Your task to perform on an android device: Go to accessibility settings Image 0: 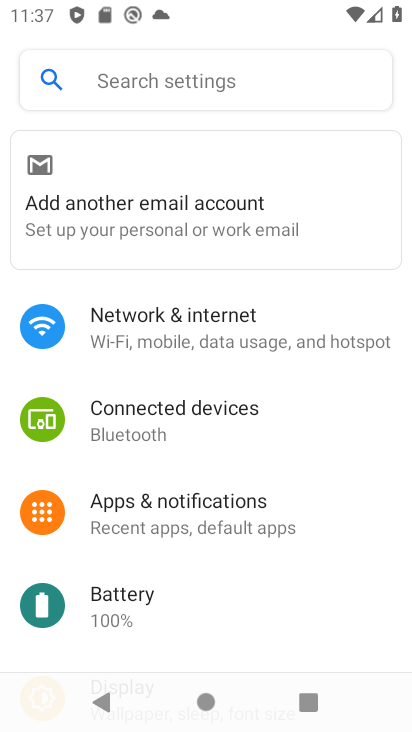
Step 0: drag from (192, 585) to (184, 2)
Your task to perform on an android device: Go to accessibility settings Image 1: 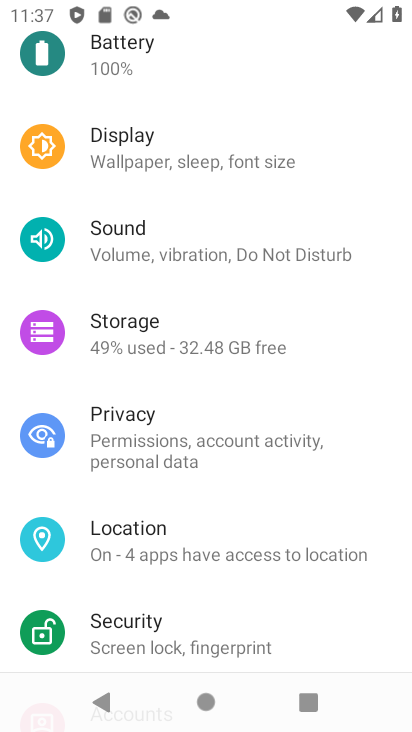
Step 1: drag from (204, 532) to (202, 51)
Your task to perform on an android device: Go to accessibility settings Image 2: 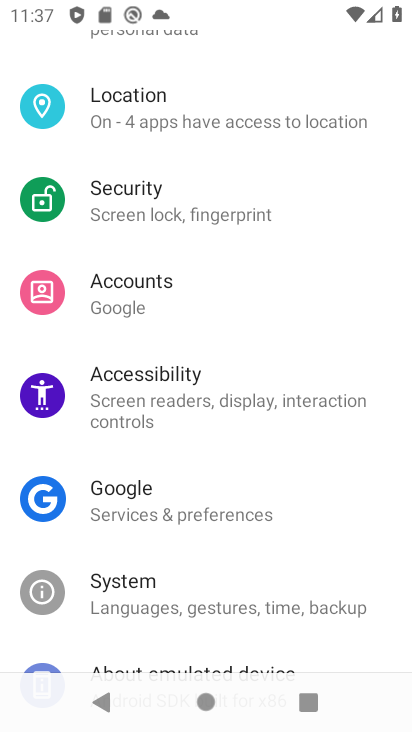
Step 2: click (167, 413)
Your task to perform on an android device: Go to accessibility settings Image 3: 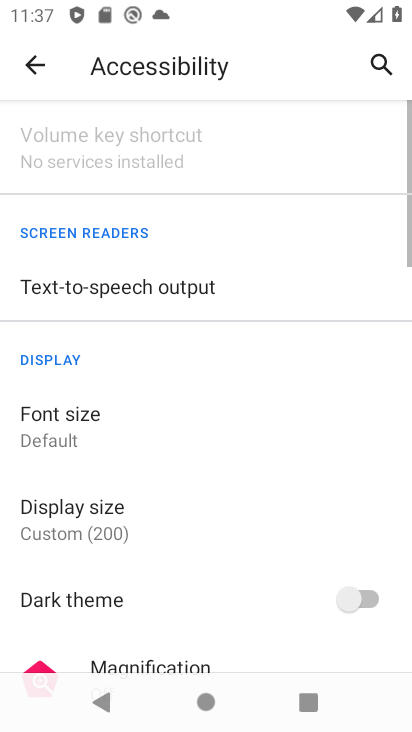
Step 3: task complete